Your task to perform on an android device: Open calendar and show me the second week of next month Image 0: 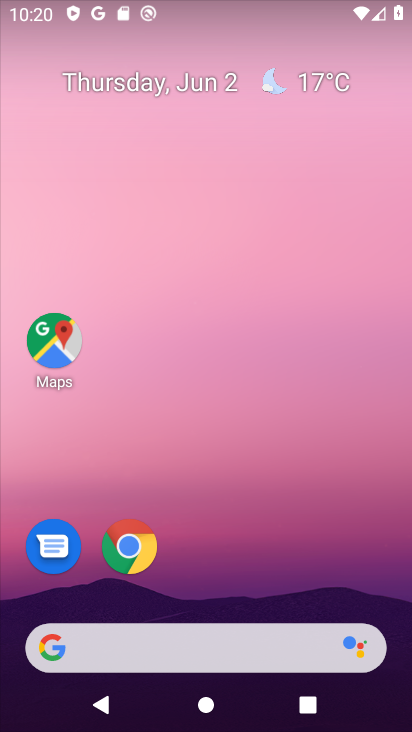
Step 0: drag from (273, 565) to (163, 13)
Your task to perform on an android device: Open calendar and show me the second week of next month Image 1: 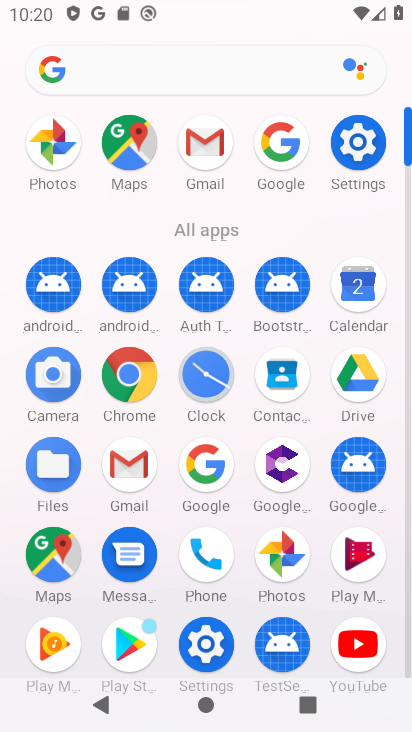
Step 1: click (357, 280)
Your task to perform on an android device: Open calendar and show me the second week of next month Image 2: 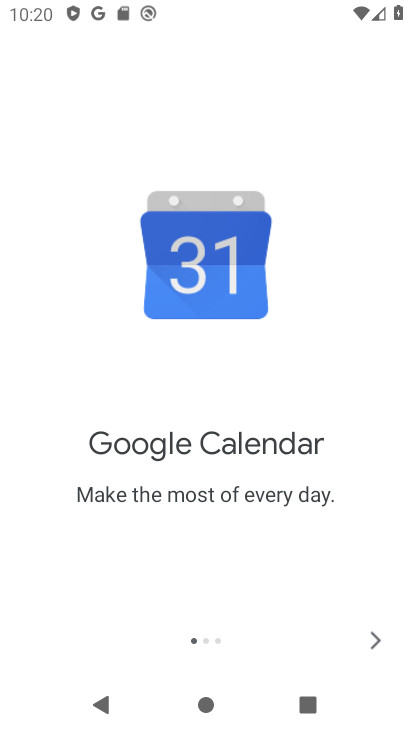
Step 2: click (374, 632)
Your task to perform on an android device: Open calendar and show me the second week of next month Image 3: 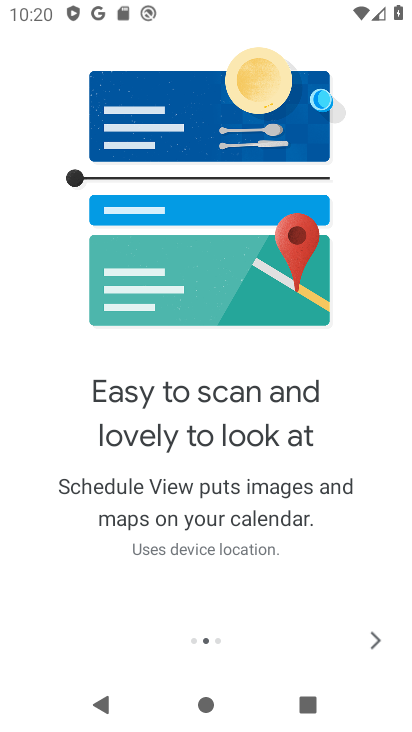
Step 3: click (369, 638)
Your task to perform on an android device: Open calendar and show me the second week of next month Image 4: 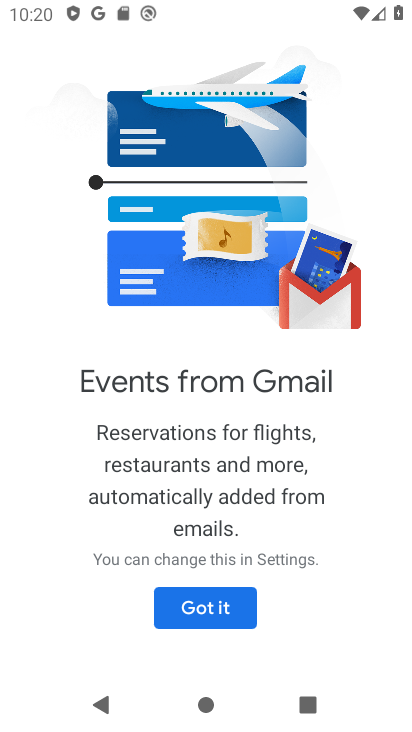
Step 4: click (185, 599)
Your task to perform on an android device: Open calendar and show me the second week of next month Image 5: 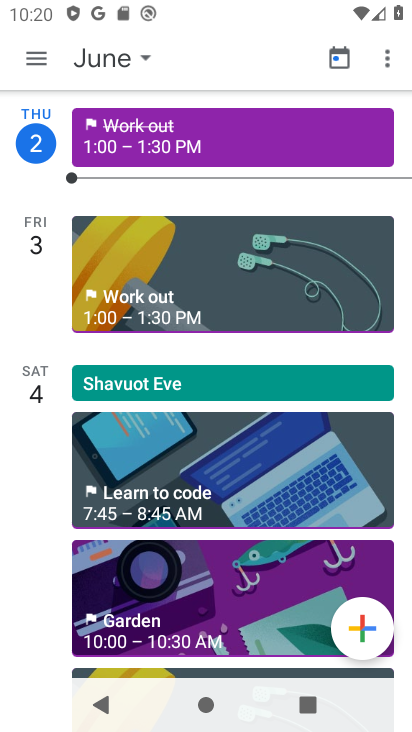
Step 5: click (104, 51)
Your task to perform on an android device: Open calendar and show me the second week of next month Image 6: 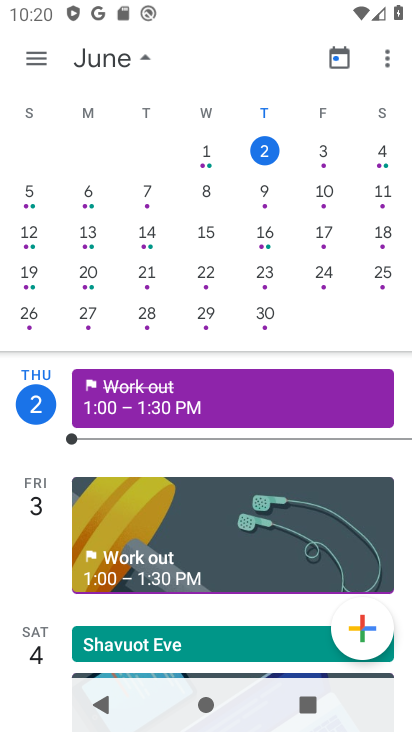
Step 6: drag from (363, 255) to (1, 224)
Your task to perform on an android device: Open calendar and show me the second week of next month Image 7: 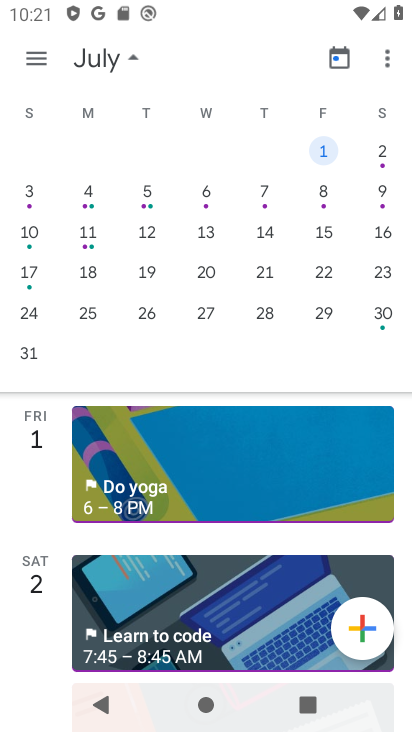
Step 7: click (29, 193)
Your task to perform on an android device: Open calendar and show me the second week of next month Image 8: 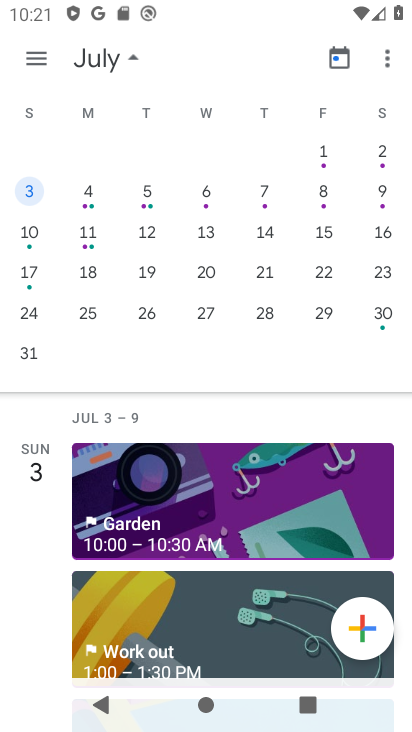
Step 8: click (27, 54)
Your task to perform on an android device: Open calendar and show me the second week of next month Image 9: 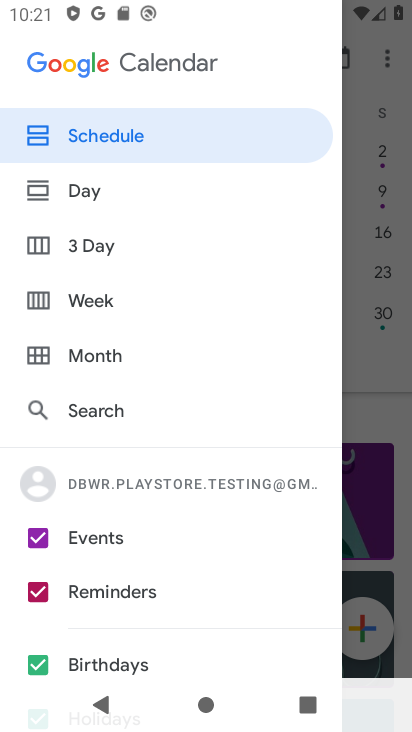
Step 9: click (99, 304)
Your task to perform on an android device: Open calendar and show me the second week of next month Image 10: 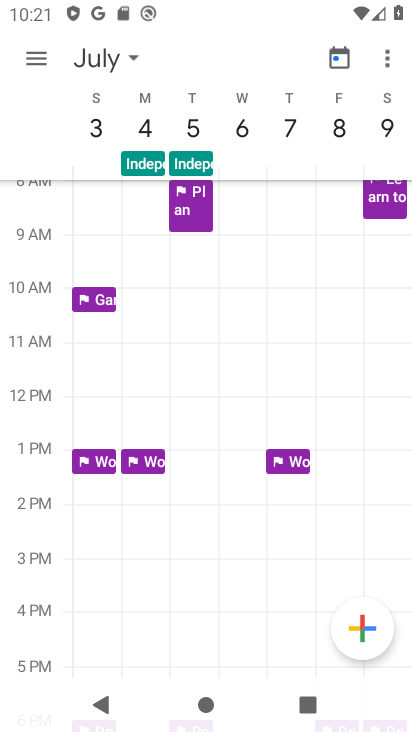
Step 10: task complete